Your task to perform on an android device: Clear the cart on bestbuy.com. Add "asus zenbook" to the cart on bestbuy.com, then select checkout. Image 0: 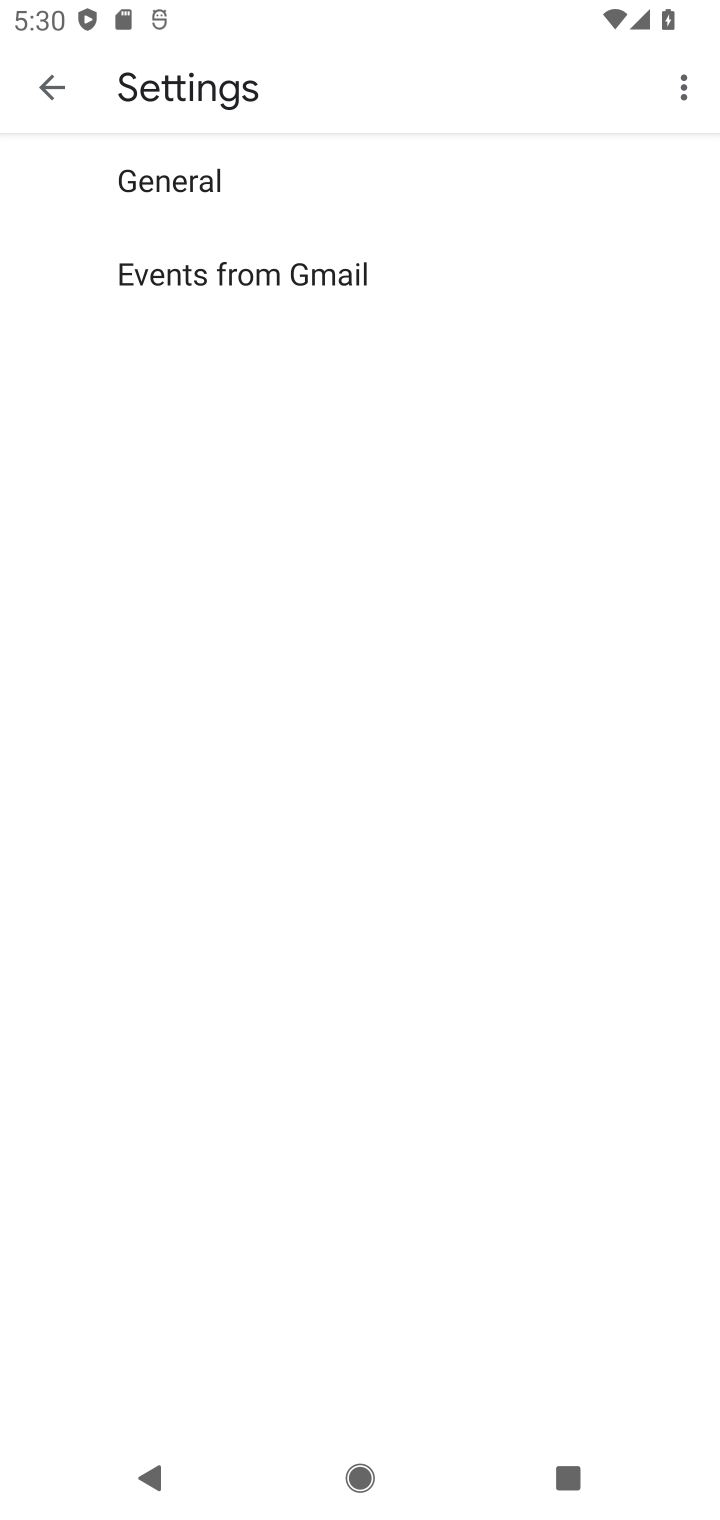
Step 0: press home button
Your task to perform on an android device: Clear the cart on bestbuy.com. Add "asus zenbook" to the cart on bestbuy.com, then select checkout. Image 1: 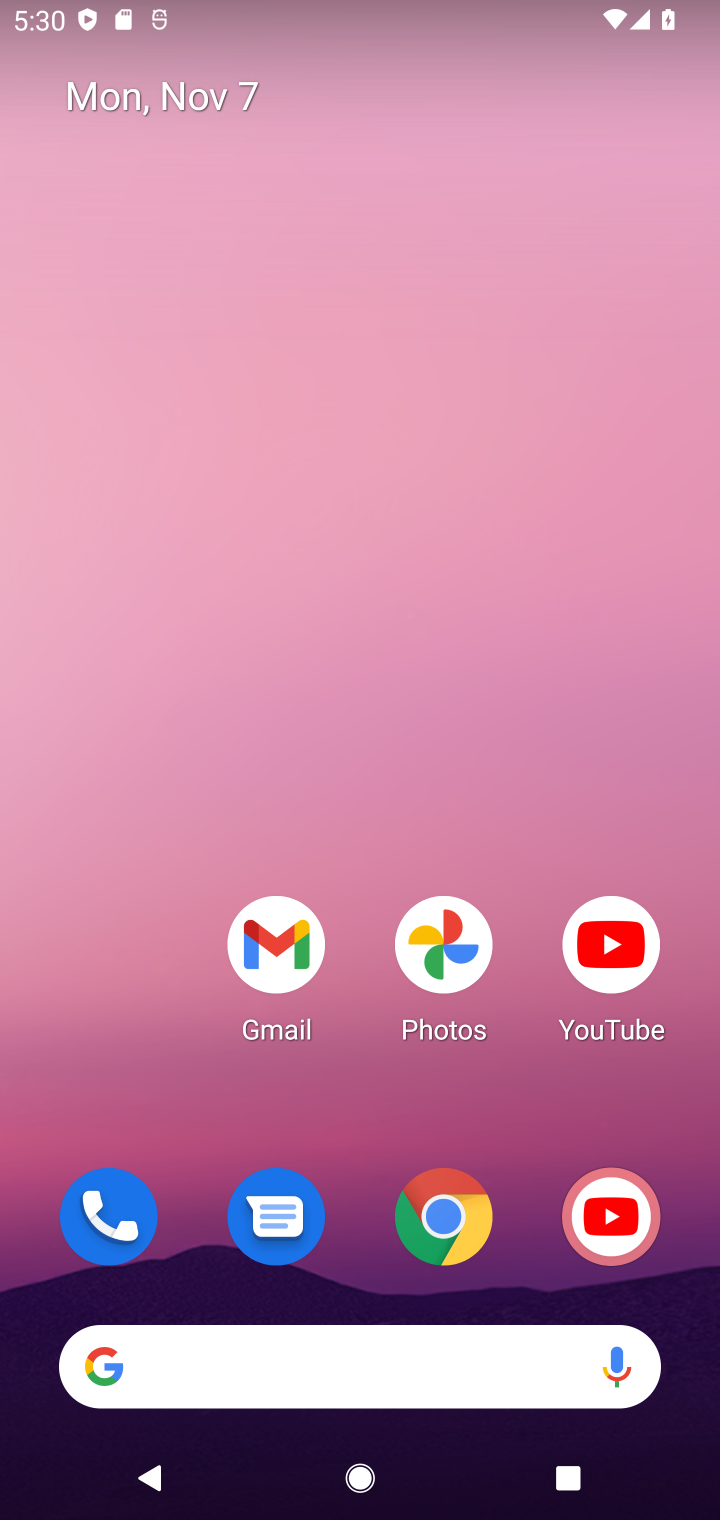
Step 1: drag from (355, 878) to (191, 41)
Your task to perform on an android device: Clear the cart on bestbuy.com. Add "asus zenbook" to the cart on bestbuy.com, then select checkout. Image 2: 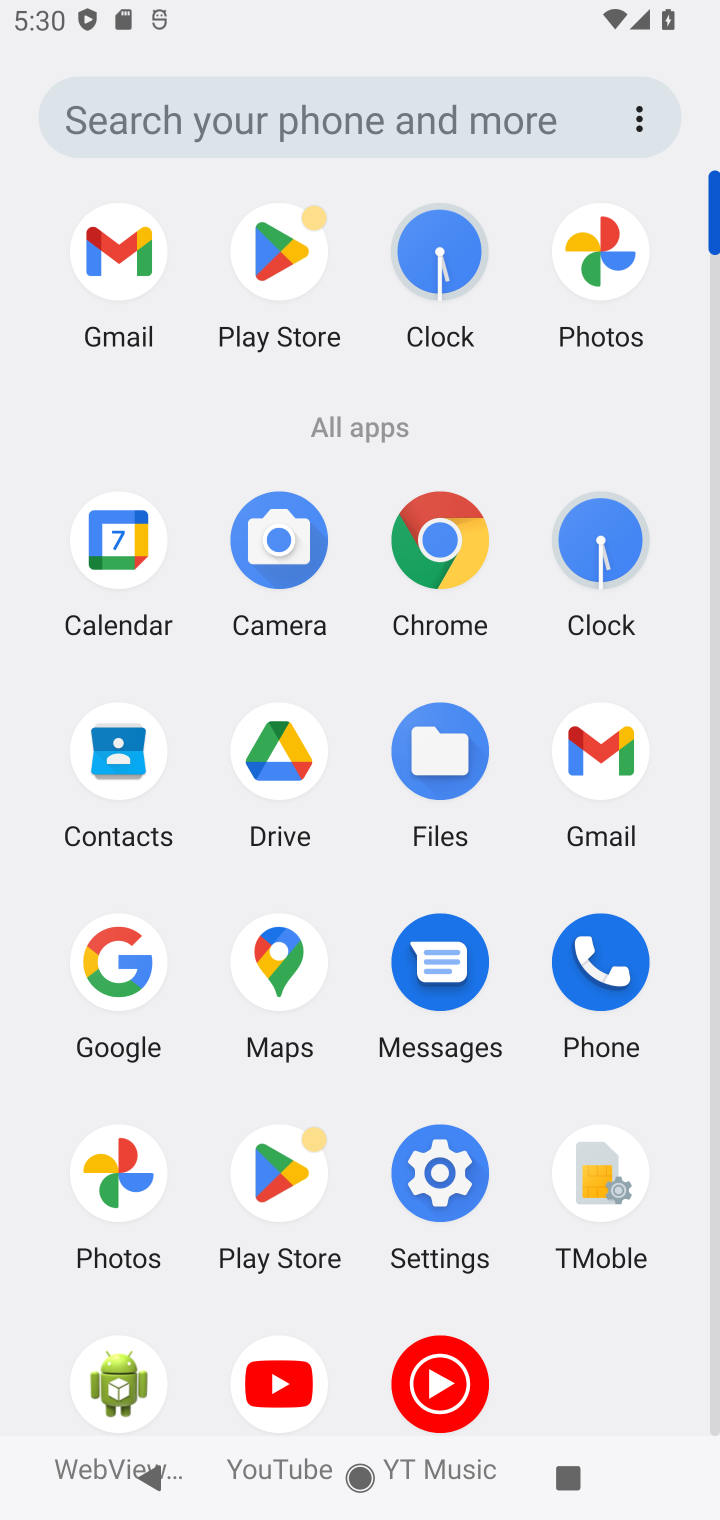
Step 2: click (442, 553)
Your task to perform on an android device: Clear the cart on bestbuy.com. Add "asus zenbook" to the cart on bestbuy.com, then select checkout. Image 3: 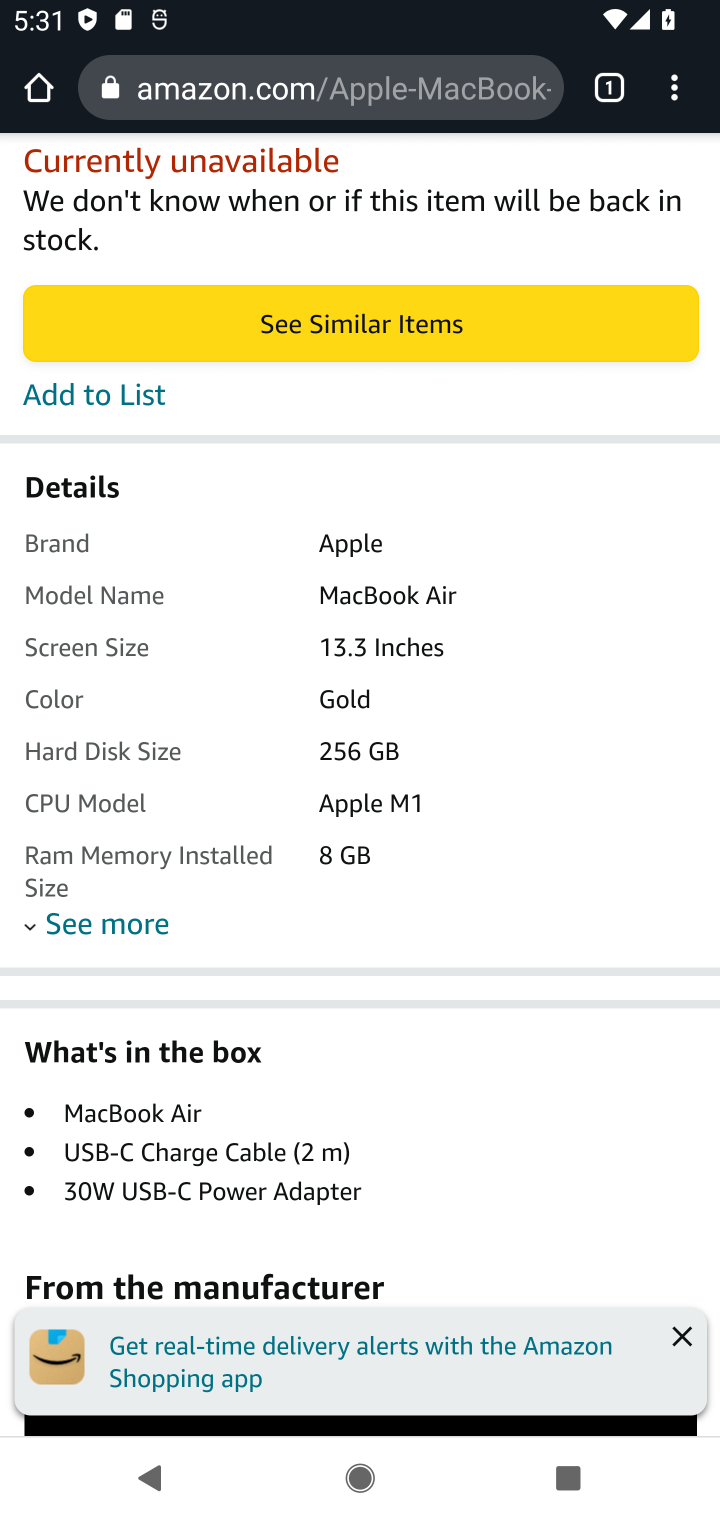
Step 3: drag from (412, 206) to (539, 873)
Your task to perform on an android device: Clear the cart on bestbuy.com. Add "asus zenbook" to the cart on bestbuy.com, then select checkout. Image 4: 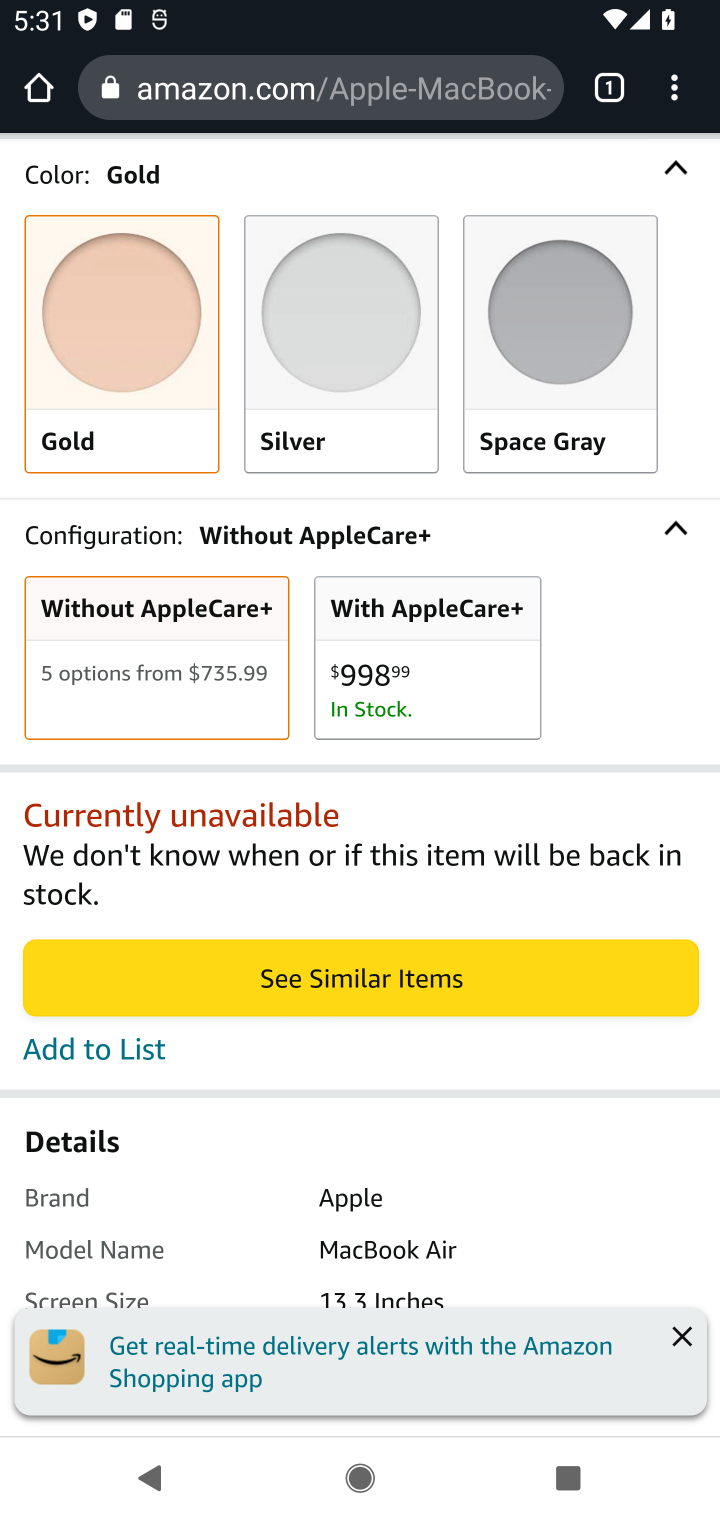
Step 4: click (424, 75)
Your task to perform on an android device: Clear the cart on bestbuy.com. Add "asus zenbook" to the cart on bestbuy.com, then select checkout. Image 5: 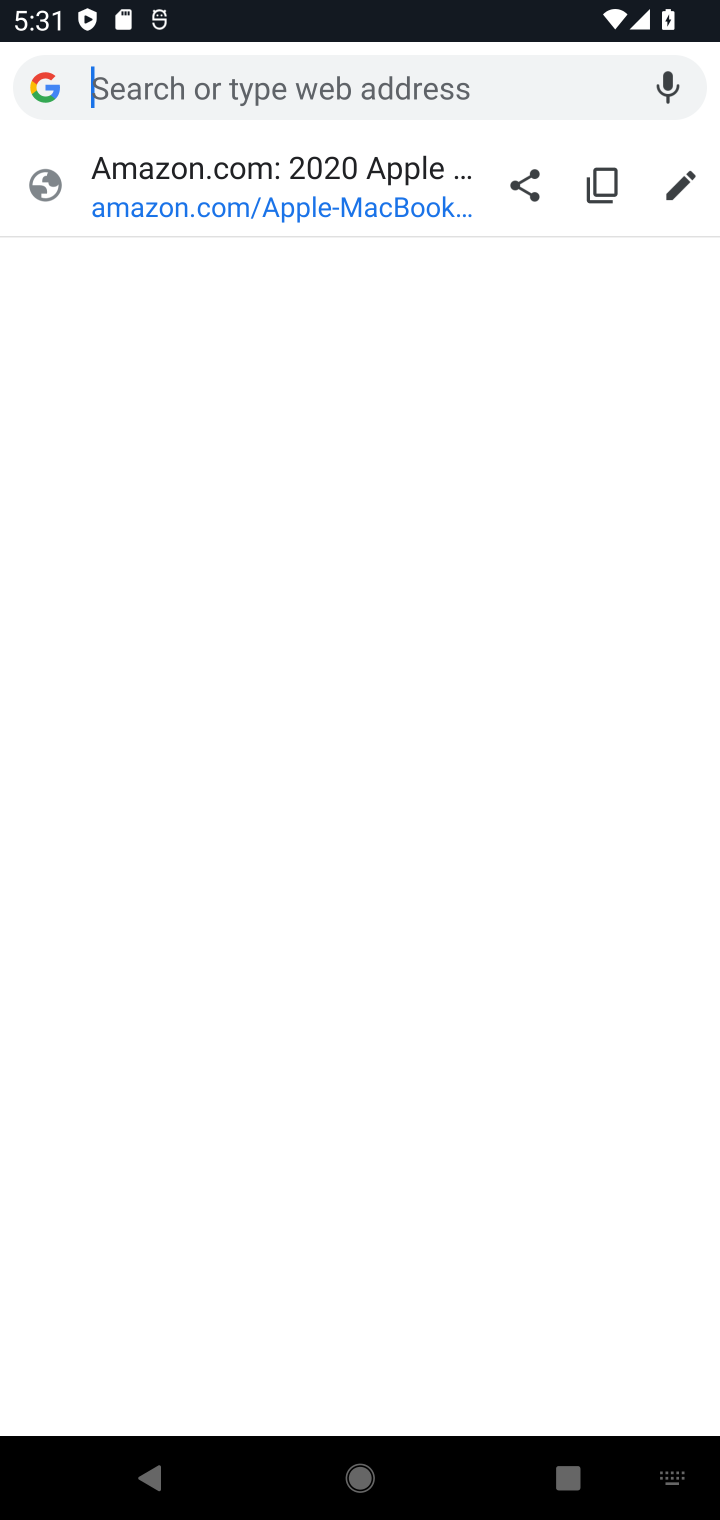
Step 5: type "bestbuy.com"
Your task to perform on an android device: Clear the cart on bestbuy.com. Add "asus zenbook" to the cart on bestbuy.com, then select checkout. Image 6: 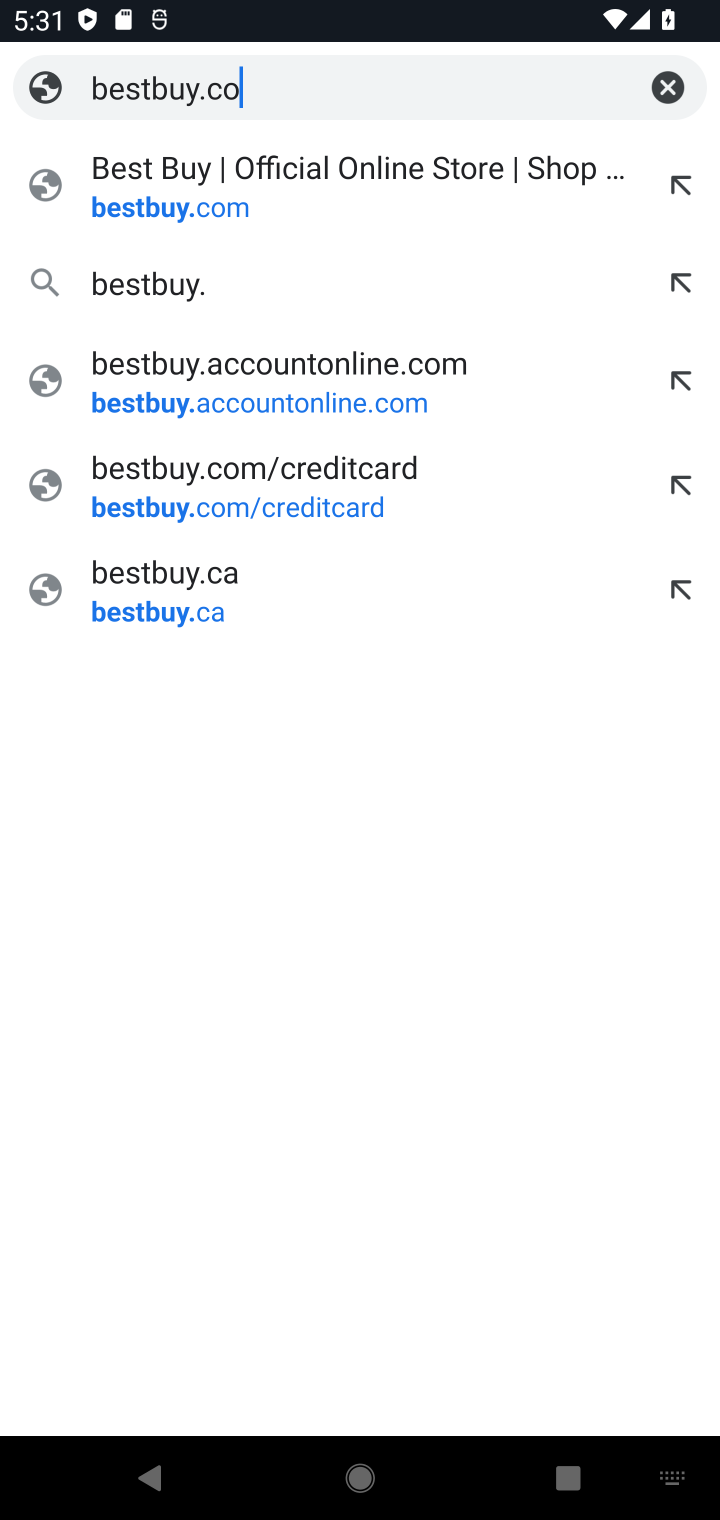
Step 6: press enter
Your task to perform on an android device: Clear the cart on bestbuy.com. Add "asus zenbook" to the cart on bestbuy.com, then select checkout. Image 7: 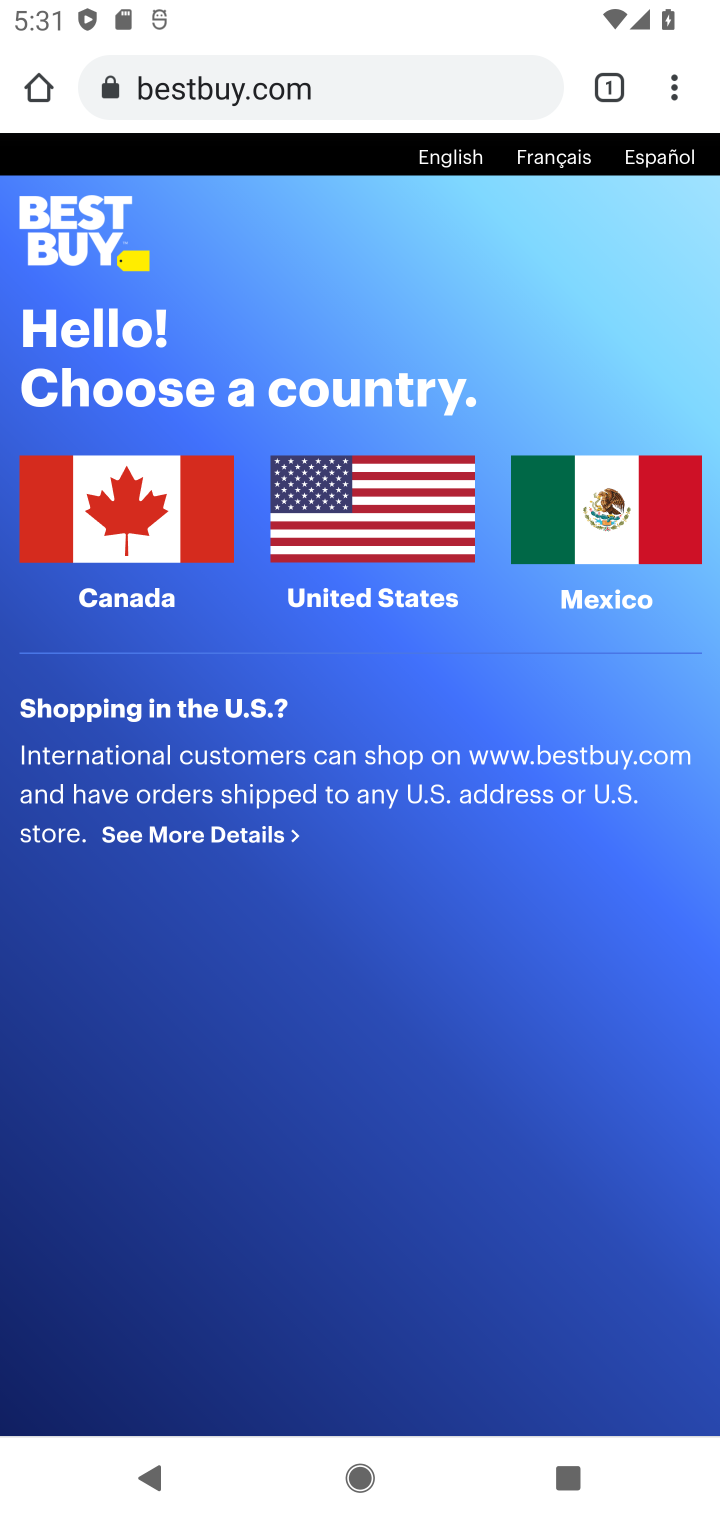
Step 7: click (171, 518)
Your task to perform on an android device: Clear the cart on bestbuy.com. Add "asus zenbook" to the cart on bestbuy.com, then select checkout. Image 8: 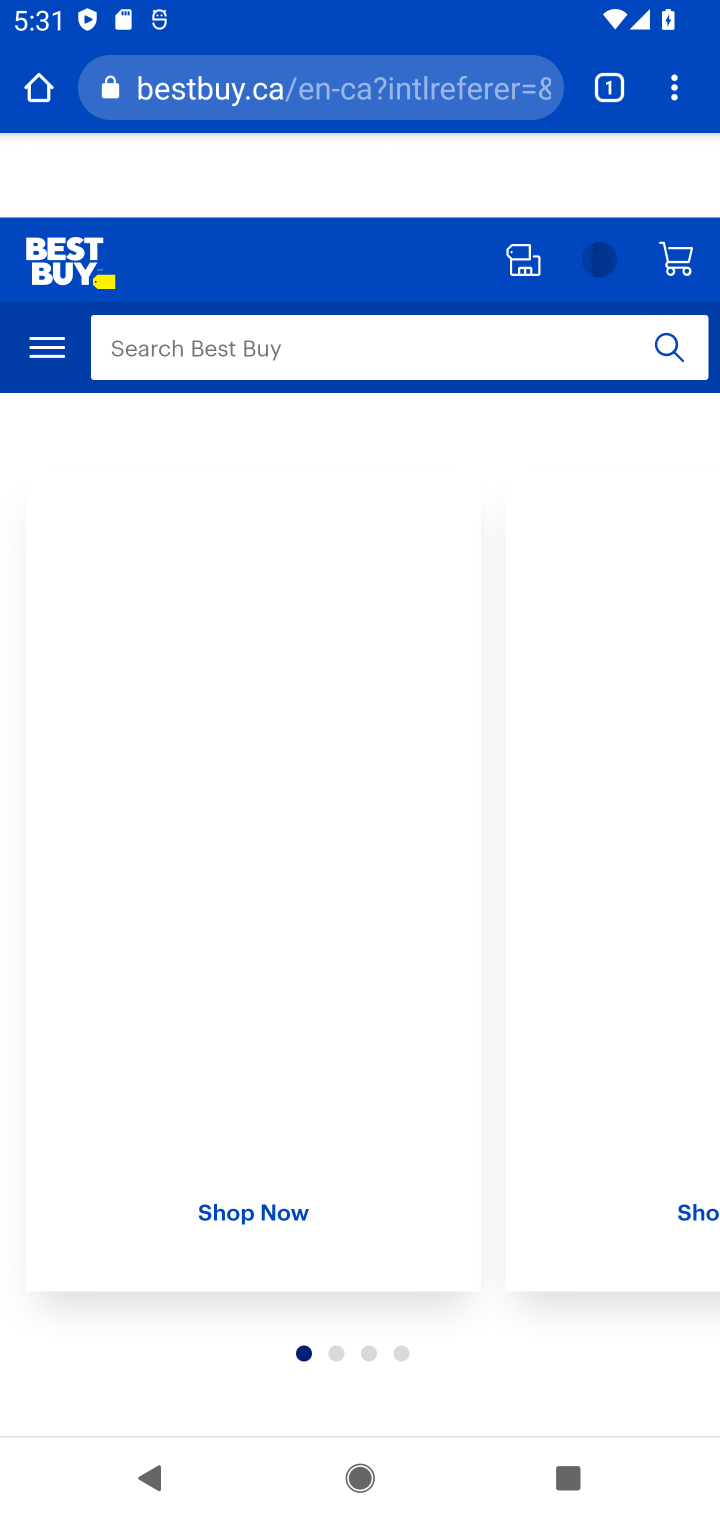
Step 8: click (687, 256)
Your task to perform on an android device: Clear the cart on bestbuy.com. Add "asus zenbook" to the cart on bestbuy.com, then select checkout. Image 9: 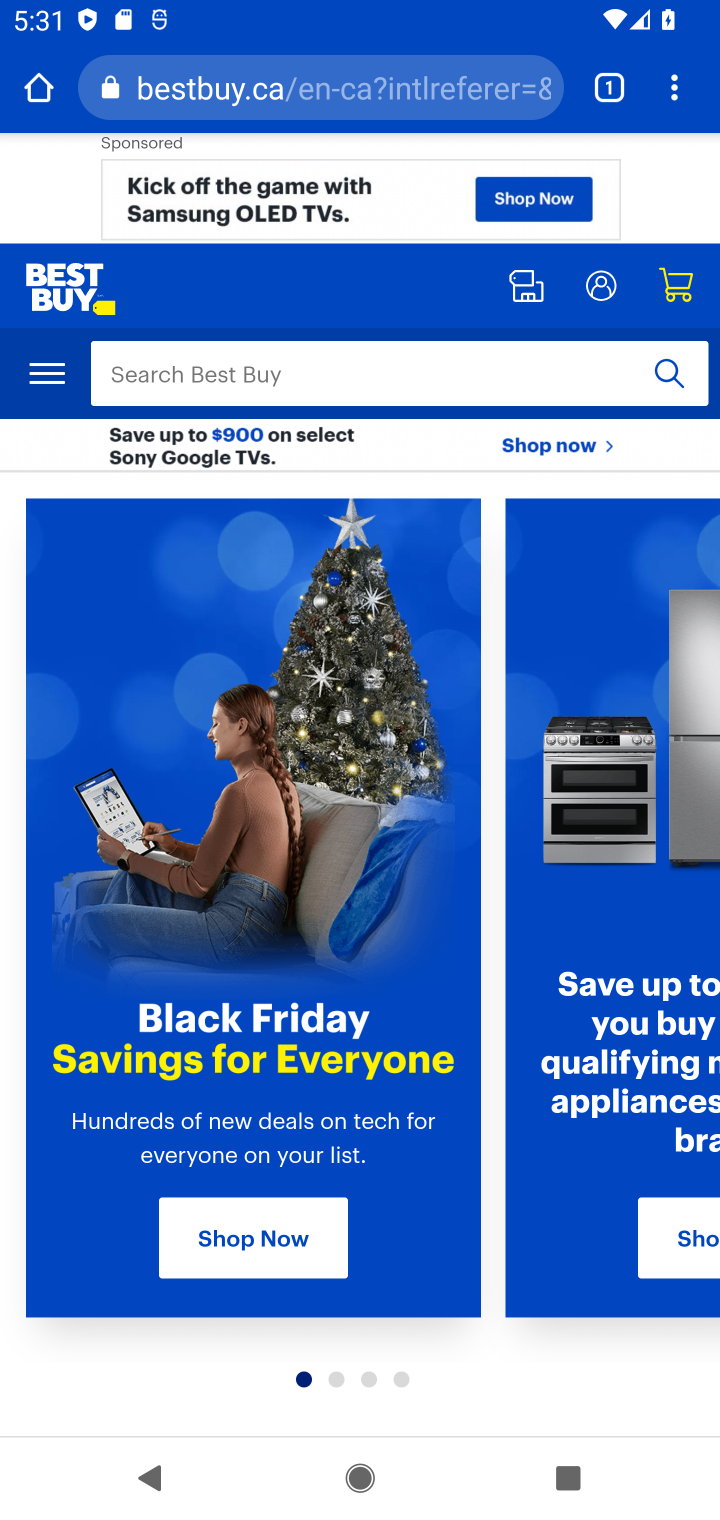
Step 9: click (473, 373)
Your task to perform on an android device: Clear the cart on bestbuy.com. Add "asus zenbook" to the cart on bestbuy.com, then select checkout. Image 10: 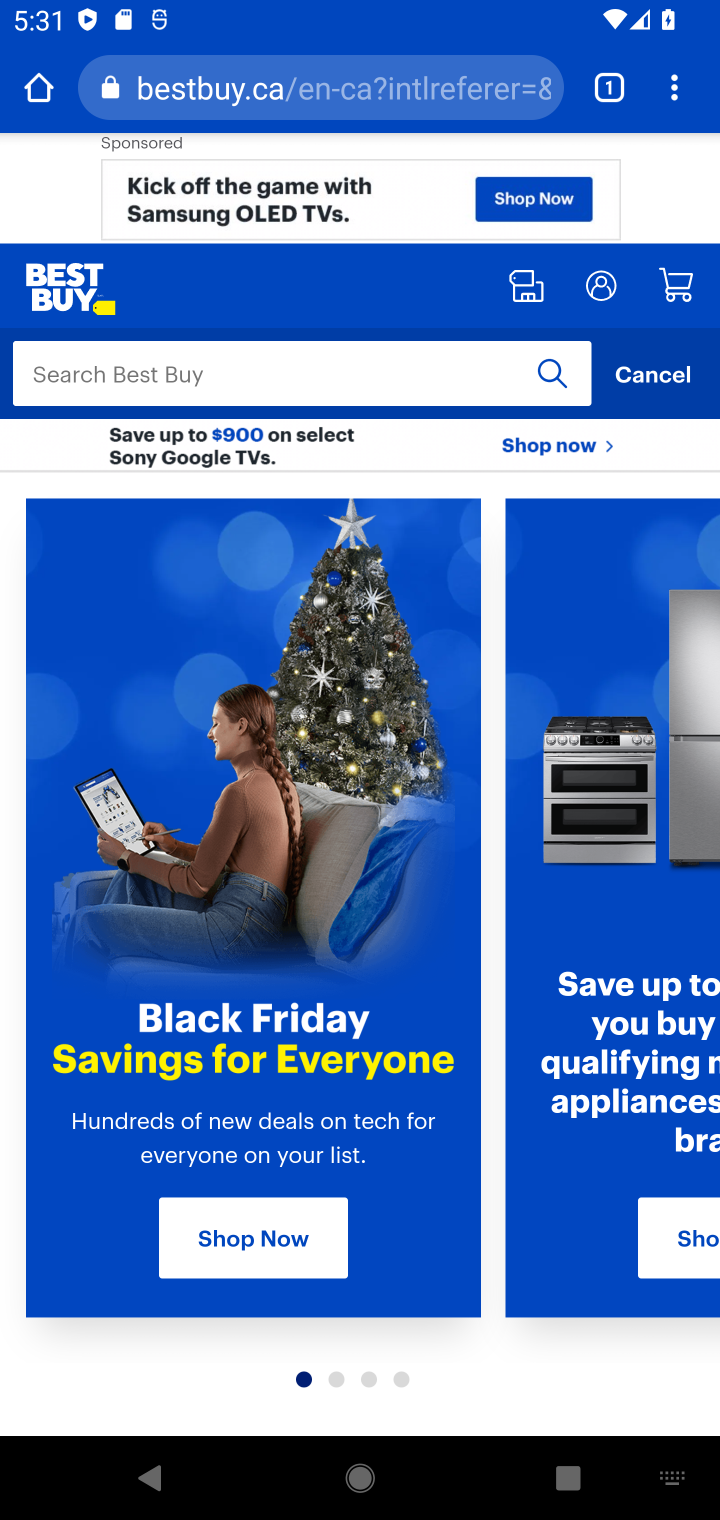
Step 10: type "asus zenbook"
Your task to perform on an android device: Clear the cart on bestbuy.com. Add "asus zenbook" to the cart on bestbuy.com, then select checkout. Image 11: 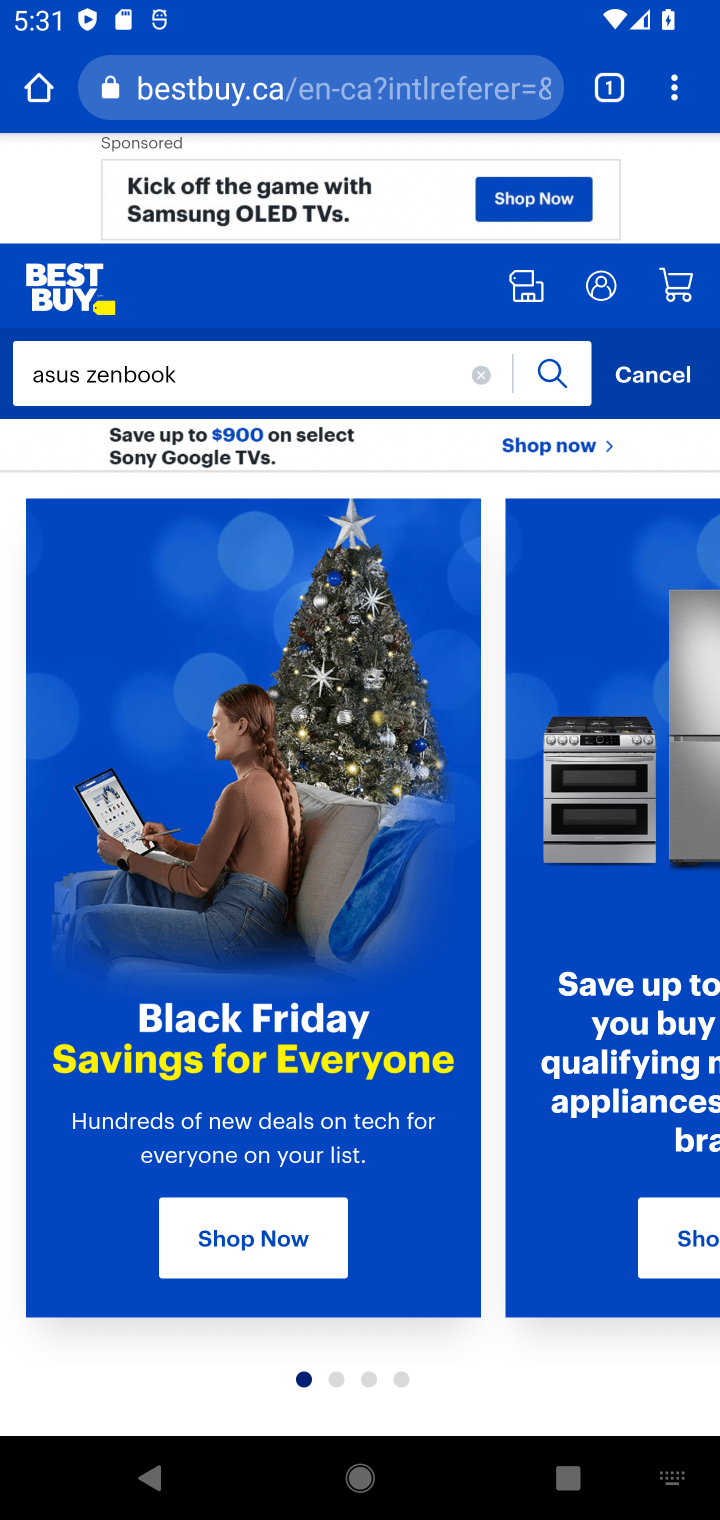
Step 11: press enter
Your task to perform on an android device: Clear the cart on bestbuy.com. Add "asus zenbook" to the cart on bestbuy.com, then select checkout. Image 12: 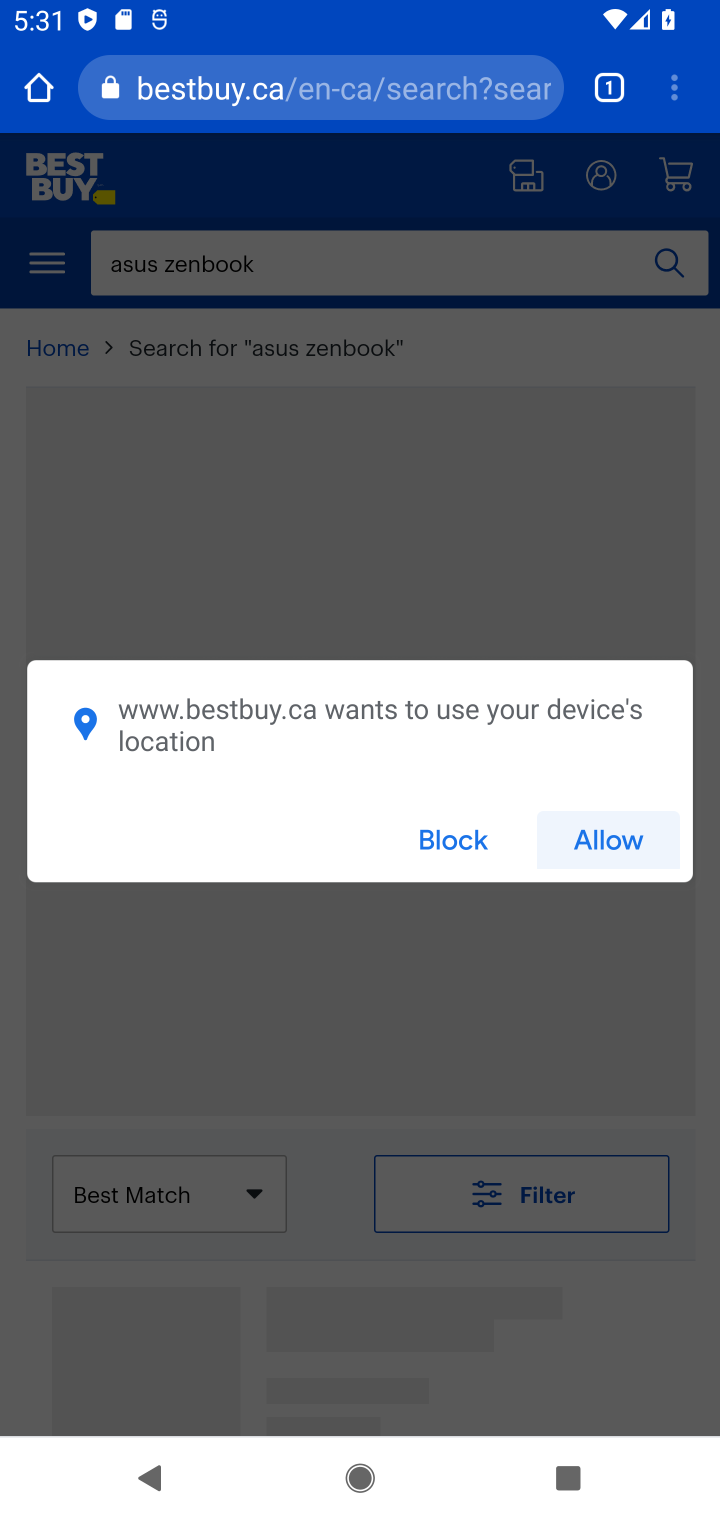
Step 12: click (446, 820)
Your task to perform on an android device: Clear the cart on bestbuy.com. Add "asus zenbook" to the cart on bestbuy.com, then select checkout. Image 13: 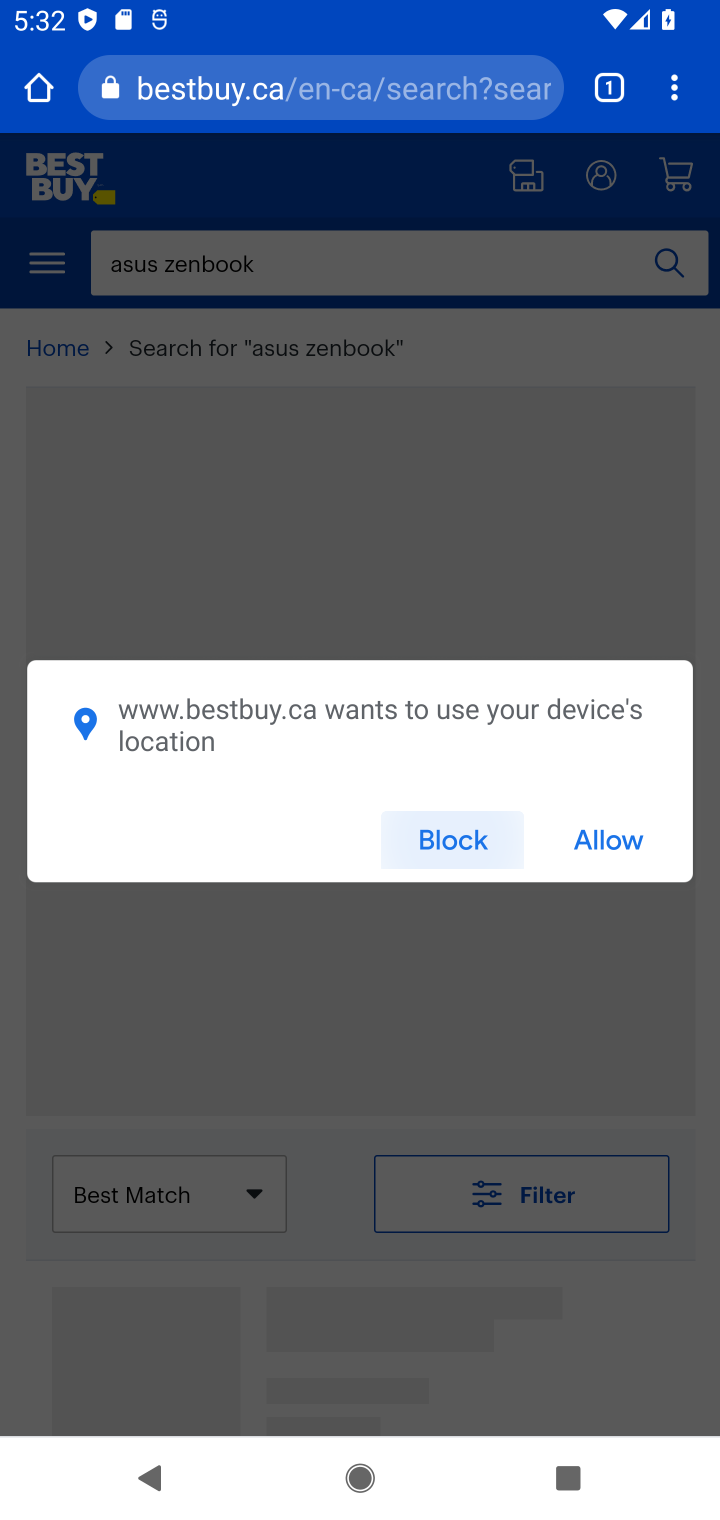
Step 13: click (455, 835)
Your task to perform on an android device: Clear the cart on bestbuy.com. Add "asus zenbook" to the cart on bestbuy.com, then select checkout. Image 14: 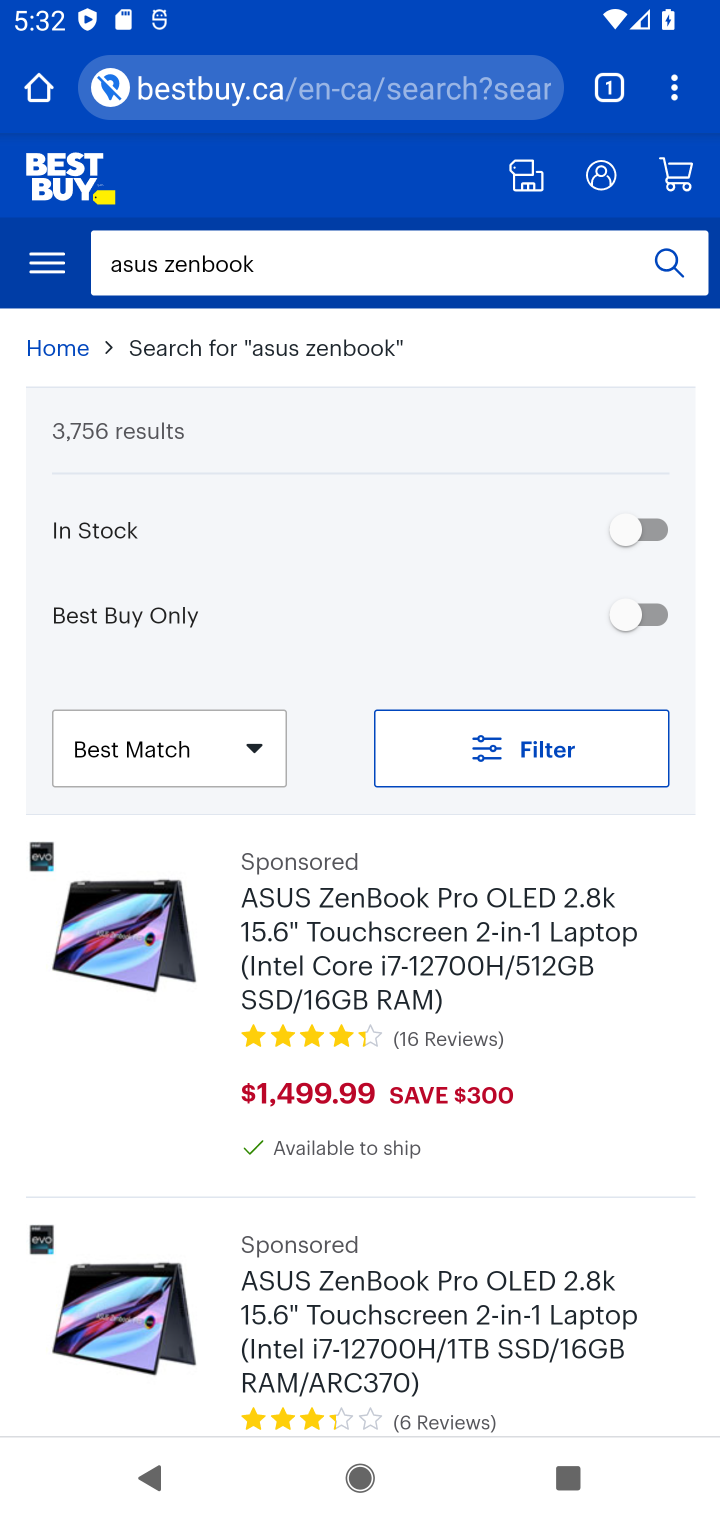
Step 14: drag from (463, 1206) to (347, 273)
Your task to perform on an android device: Clear the cart on bestbuy.com. Add "asus zenbook" to the cart on bestbuy.com, then select checkout. Image 15: 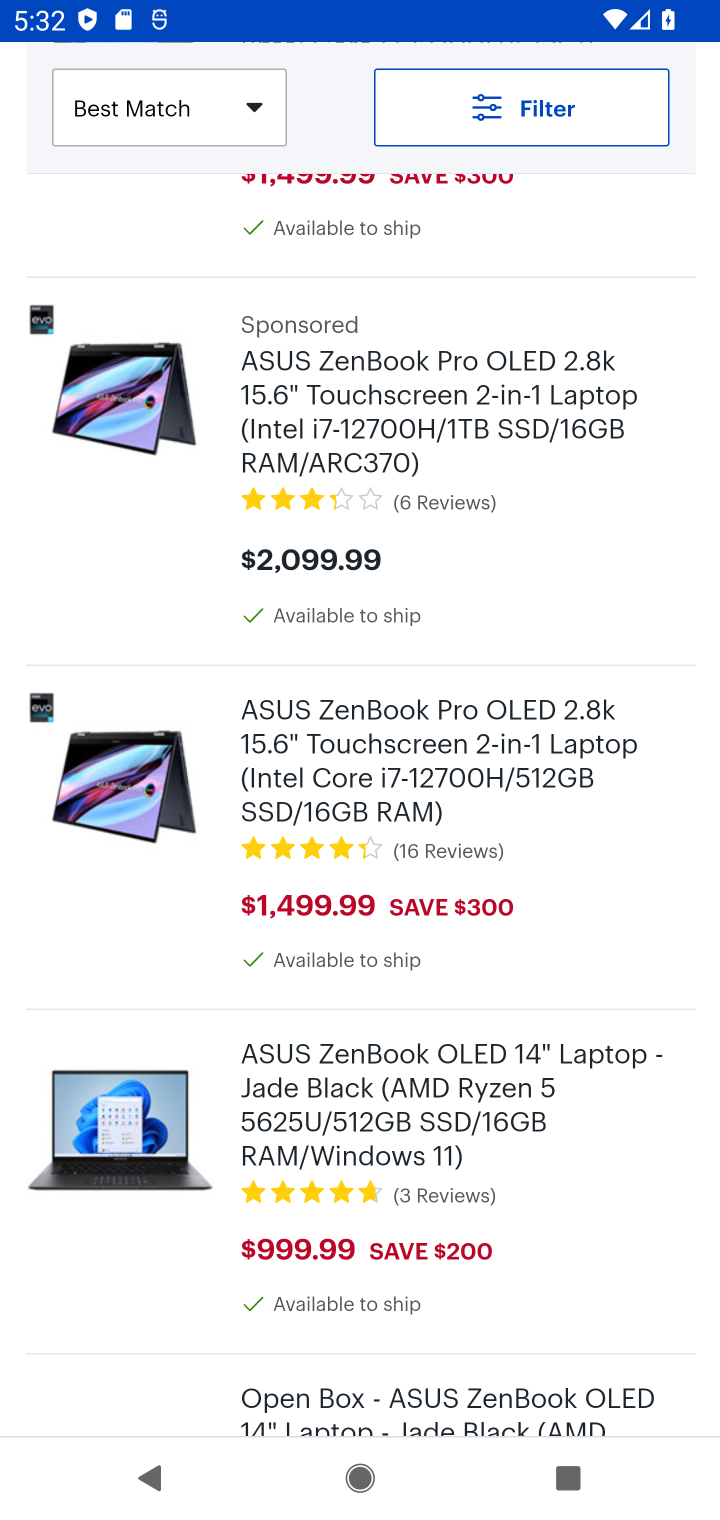
Step 15: click (378, 766)
Your task to perform on an android device: Clear the cart on bestbuy.com. Add "asus zenbook" to the cart on bestbuy.com, then select checkout. Image 16: 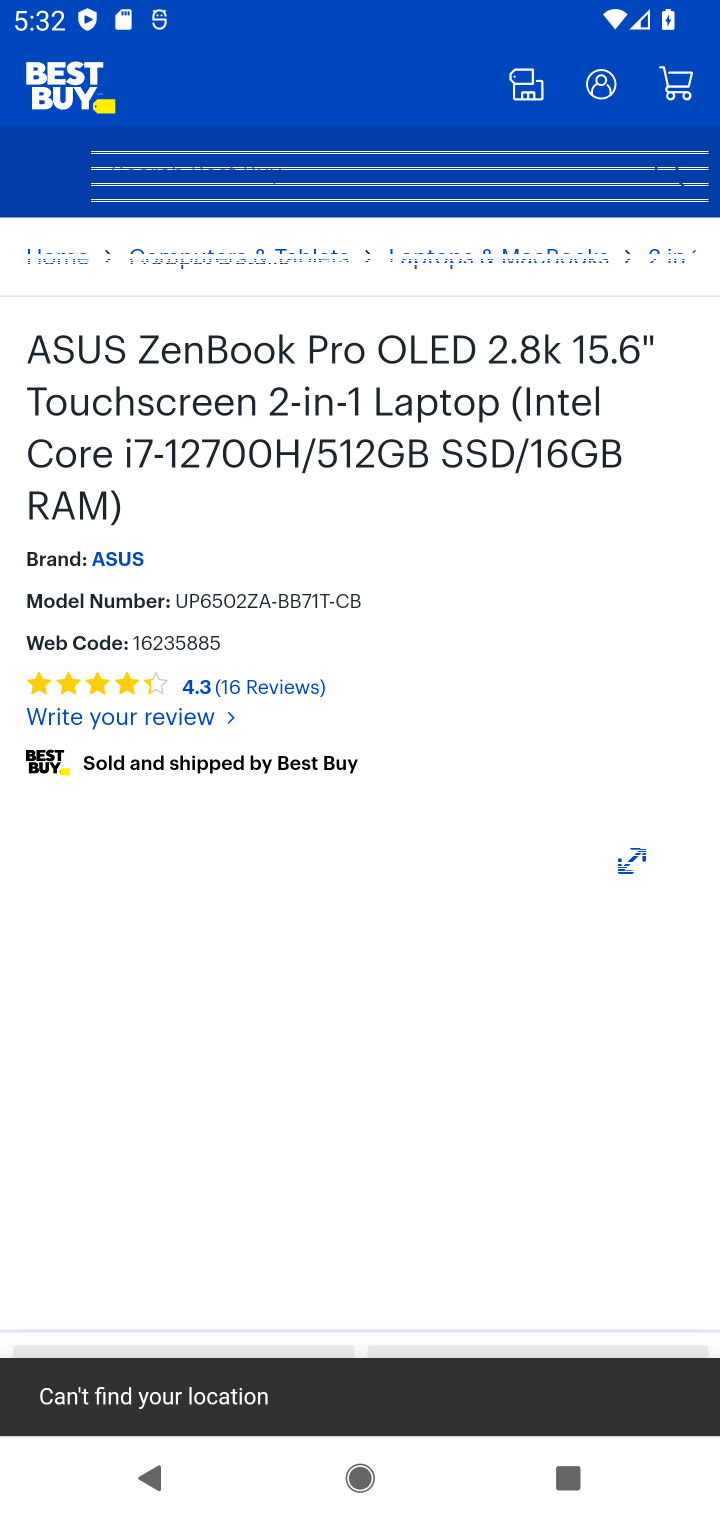
Step 16: click (457, 782)
Your task to perform on an android device: Clear the cart on bestbuy.com. Add "asus zenbook" to the cart on bestbuy.com, then select checkout. Image 17: 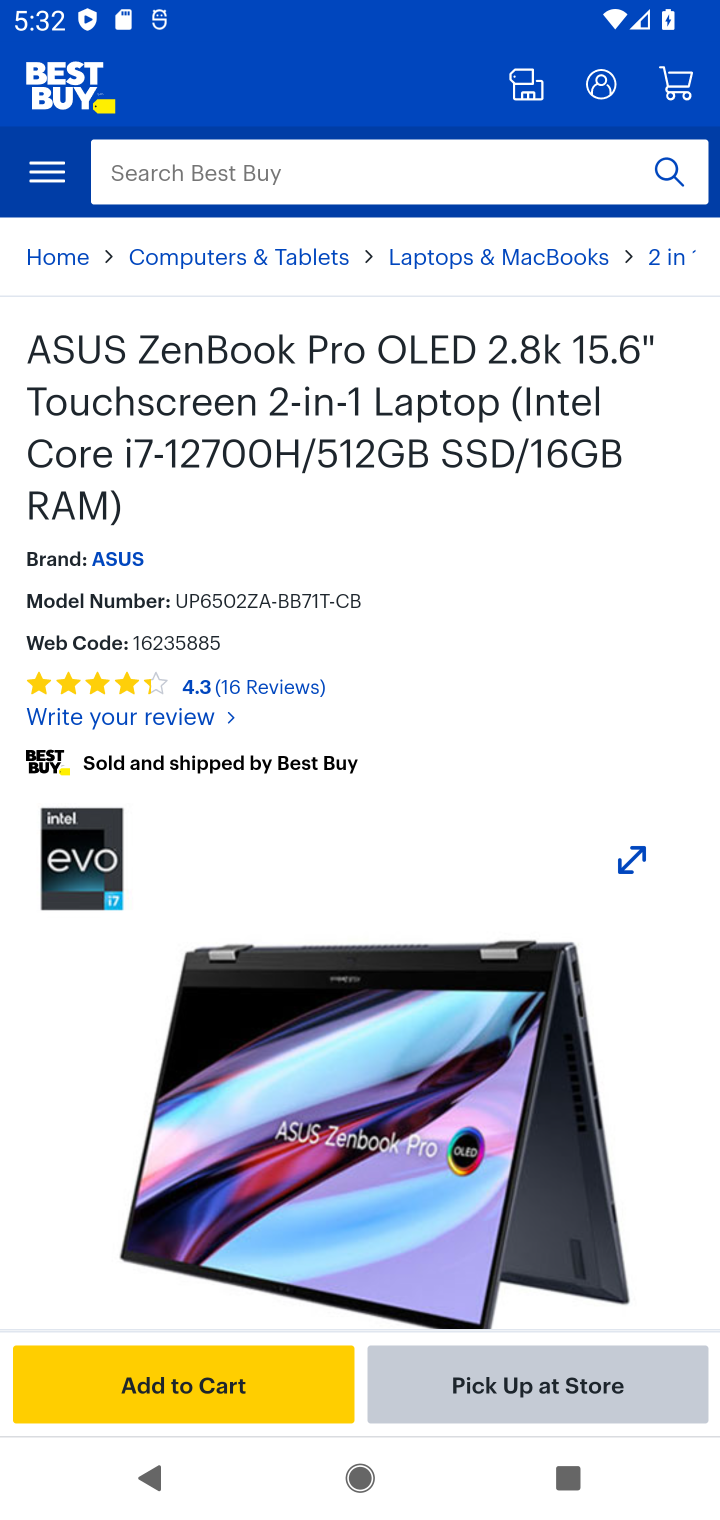
Step 17: drag from (465, 983) to (525, 253)
Your task to perform on an android device: Clear the cart on bestbuy.com. Add "asus zenbook" to the cart on bestbuy.com, then select checkout. Image 18: 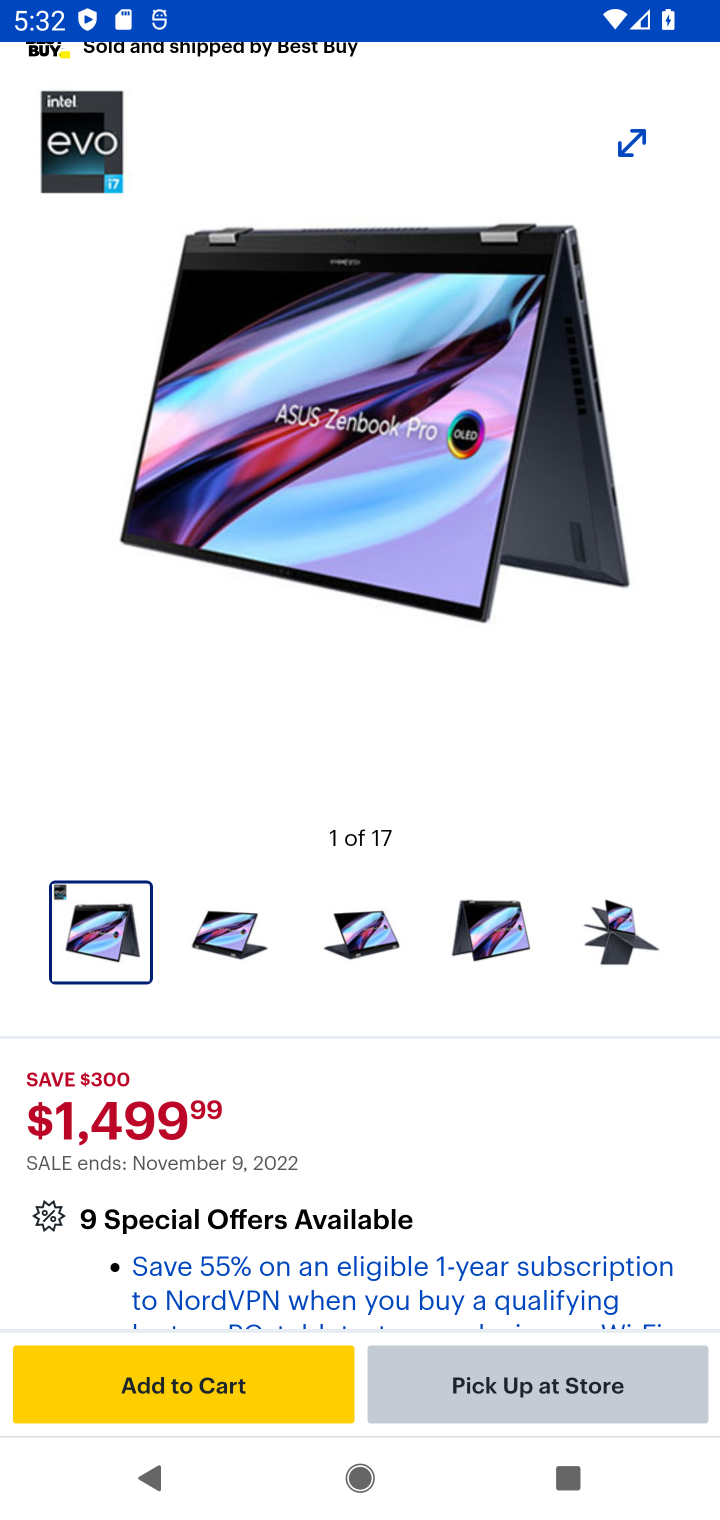
Step 18: click (271, 1389)
Your task to perform on an android device: Clear the cart on bestbuy.com. Add "asus zenbook" to the cart on bestbuy.com, then select checkout. Image 19: 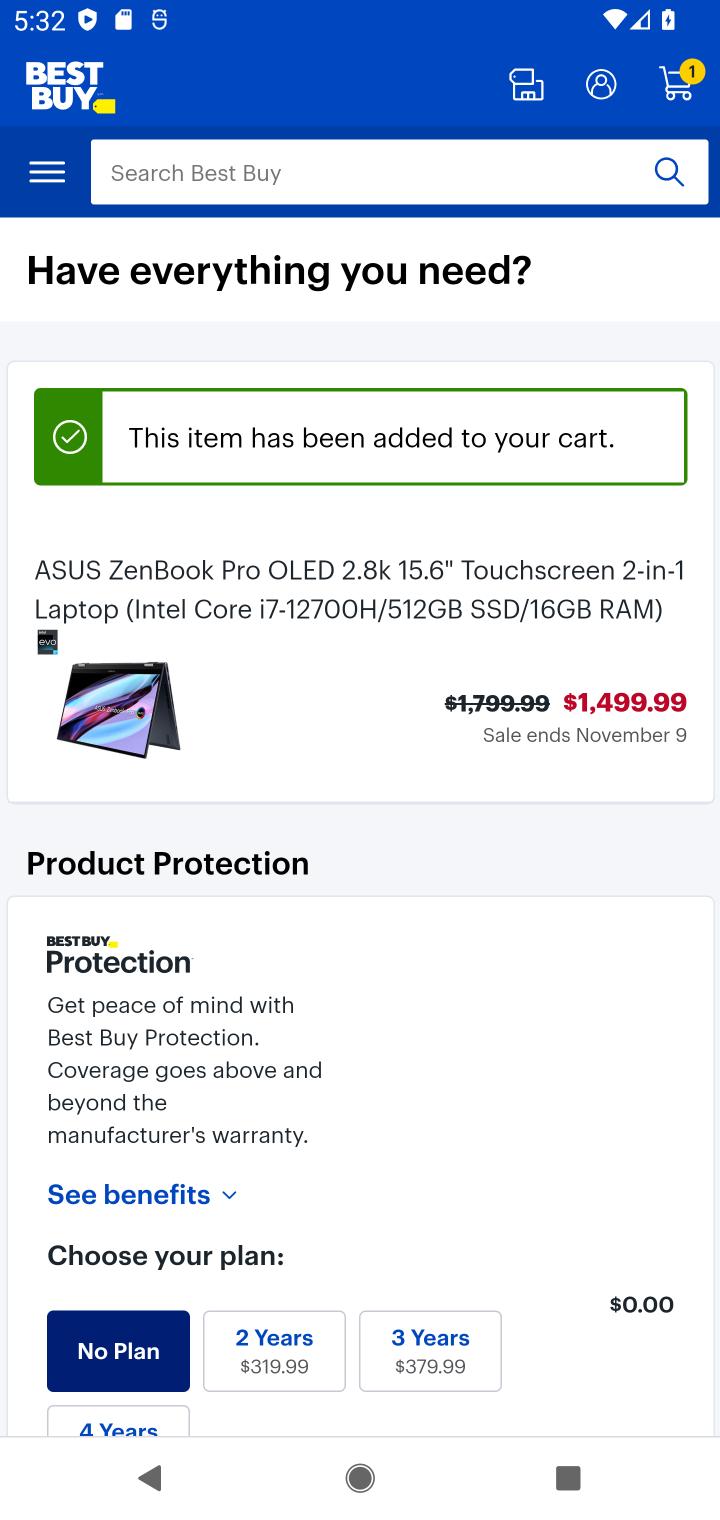
Step 19: drag from (514, 1119) to (520, 1266)
Your task to perform on an android device: Clear the cart on bestbuy.com. Add "asus zenbook" to the cart on bestbuy.com, then select checkout. Image 20: 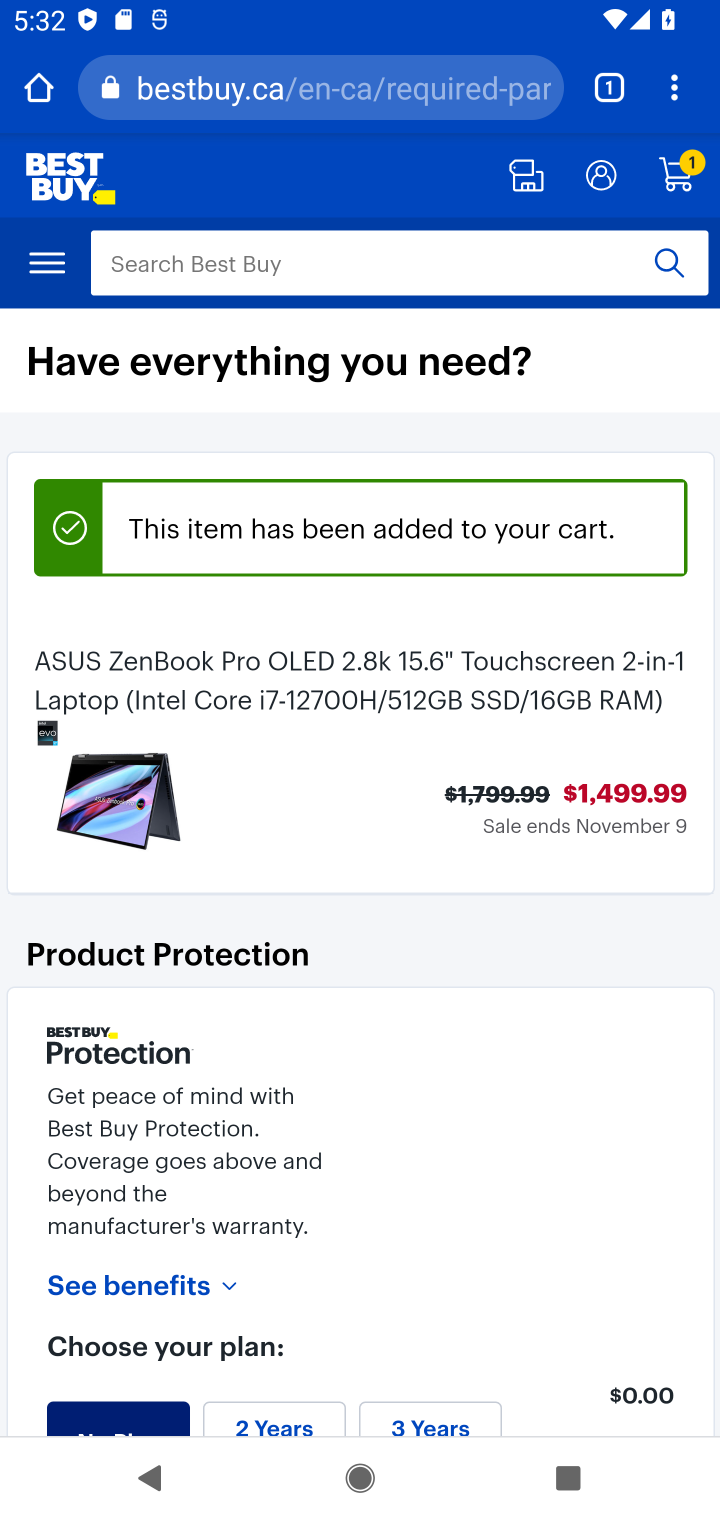
Step 20: click (696, 175)
Your task to perform on an android device: Clear the cart on bestbuy.com. Add "asus zenbook" to the cart on bestbuy.com, then select checkout. Image 21: 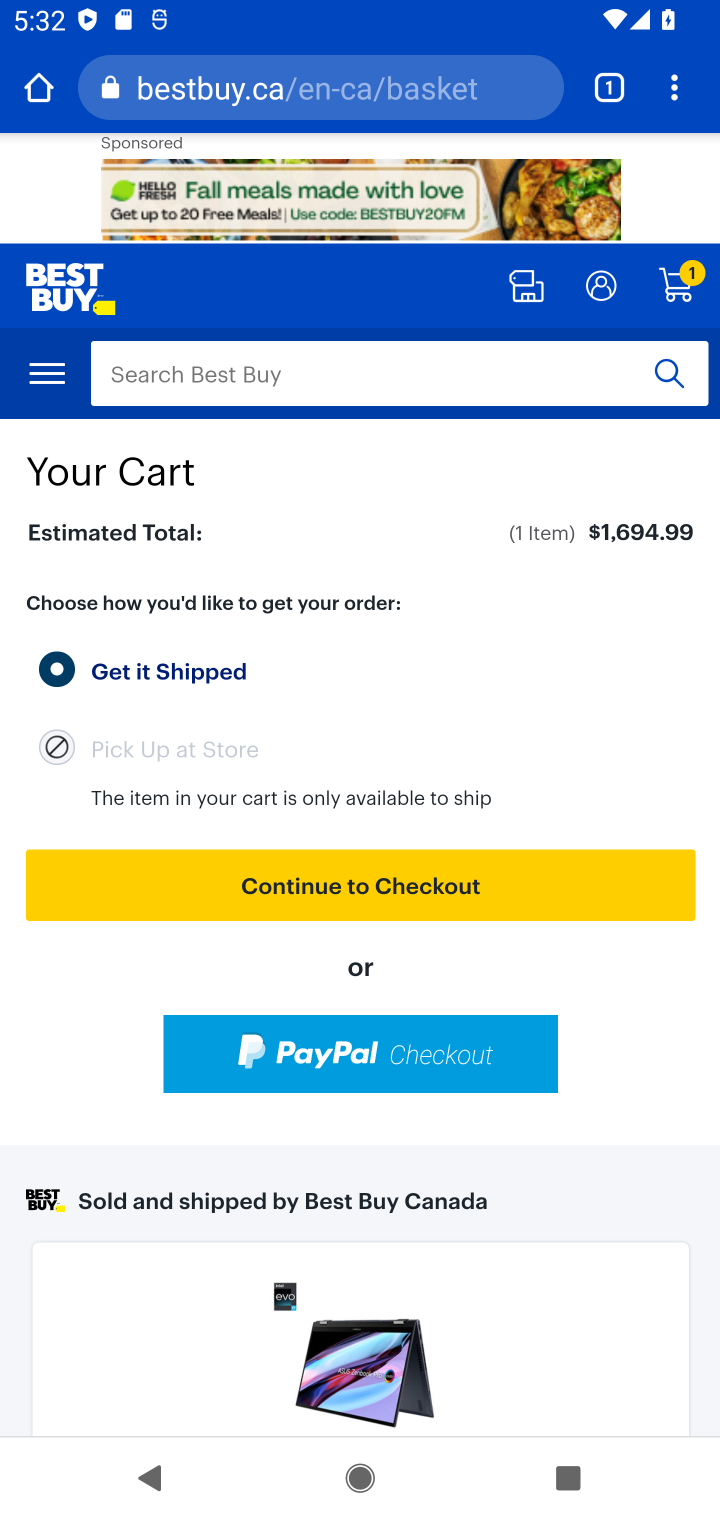
Step 21: click (451, 878)
Your task to perform on an android device: Clear the cart on bestbuy.com. Add "asus zenbook" to the cart on bestbuy.com, then select checkout. Image 22: 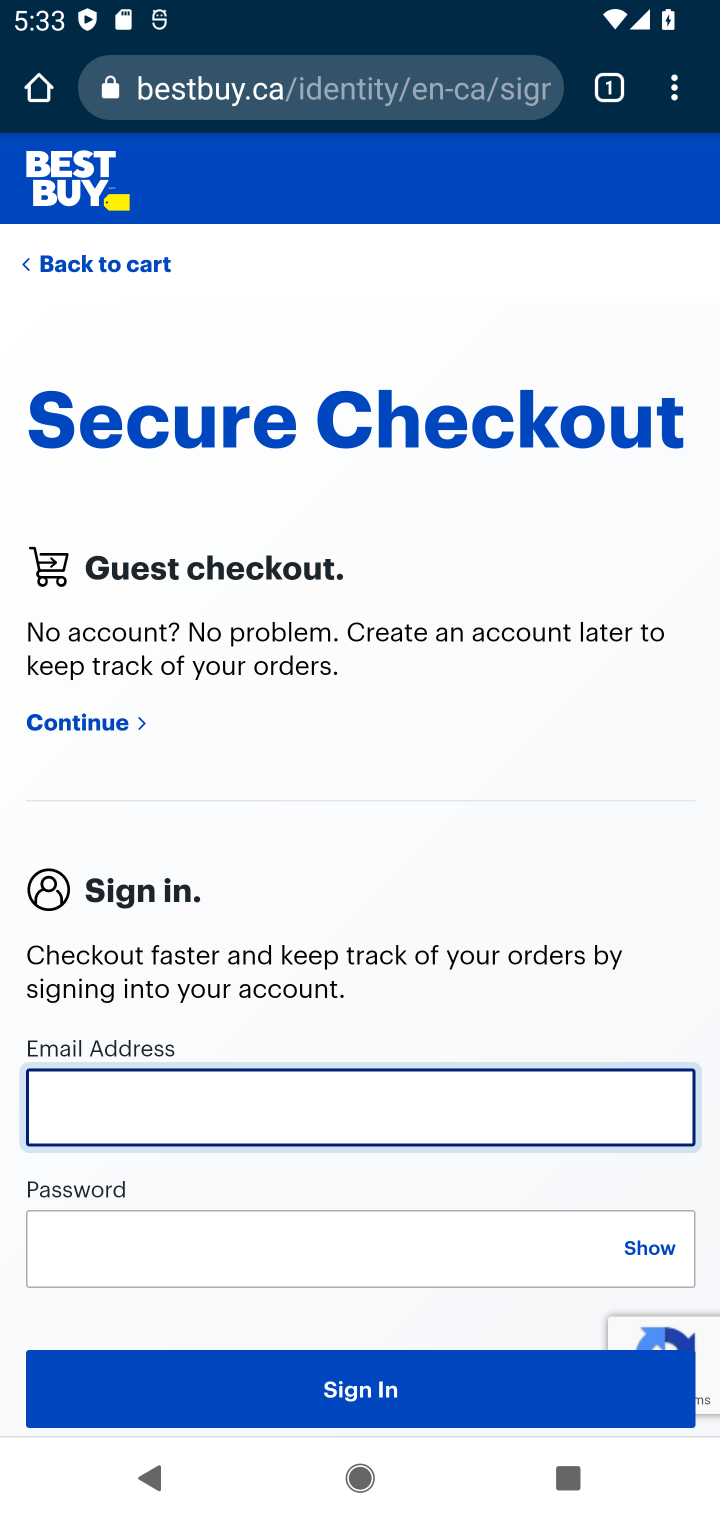
Step 22: task complete